Your task to perform on an android device: stop showing notifications on the lock screen Image 0: 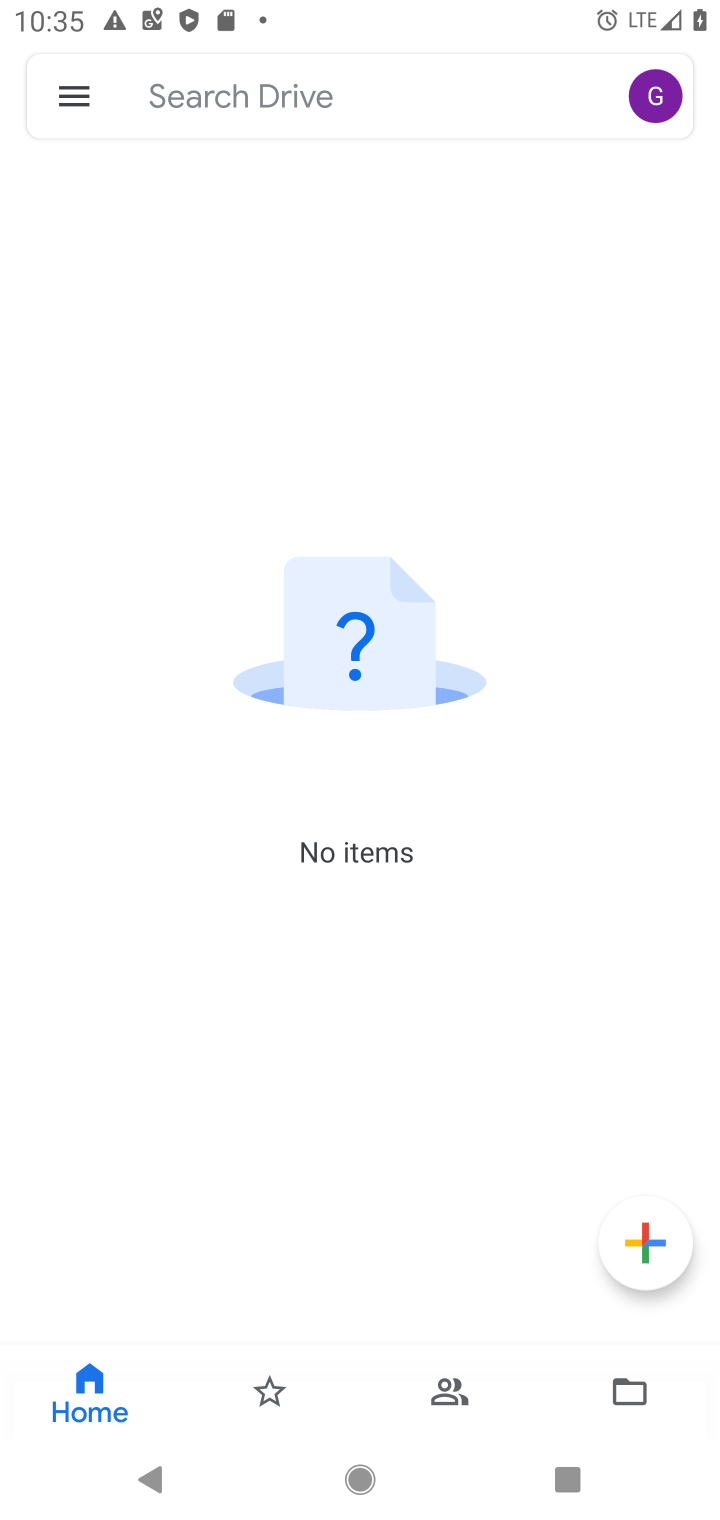
Step 0: press home button
Your task to perform on an android device: stop showing notifications on the lock screen Image 1: 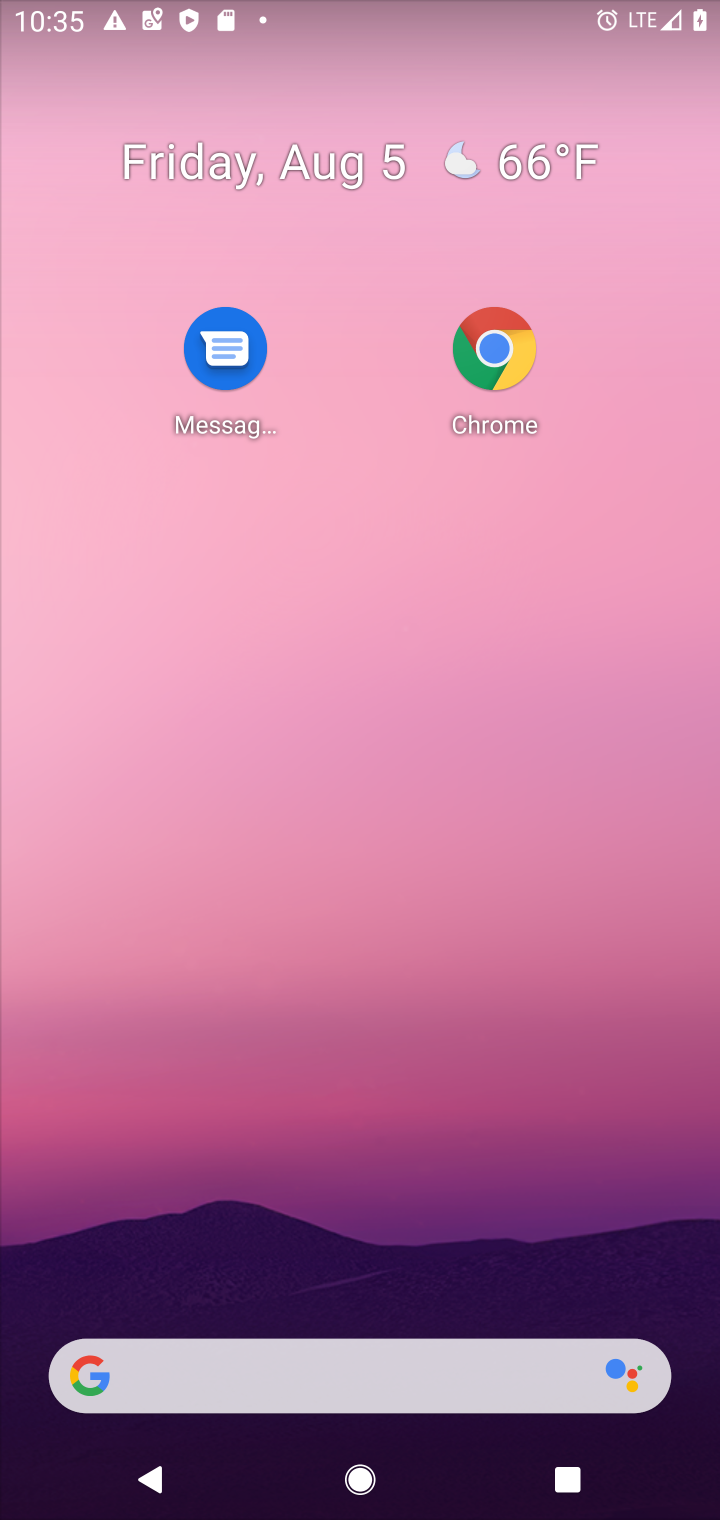
Step 1: drag from (414, 1361) to (479, 537)
Your task to perform on an android device: stop showing notifications on the lock screen Image 2: 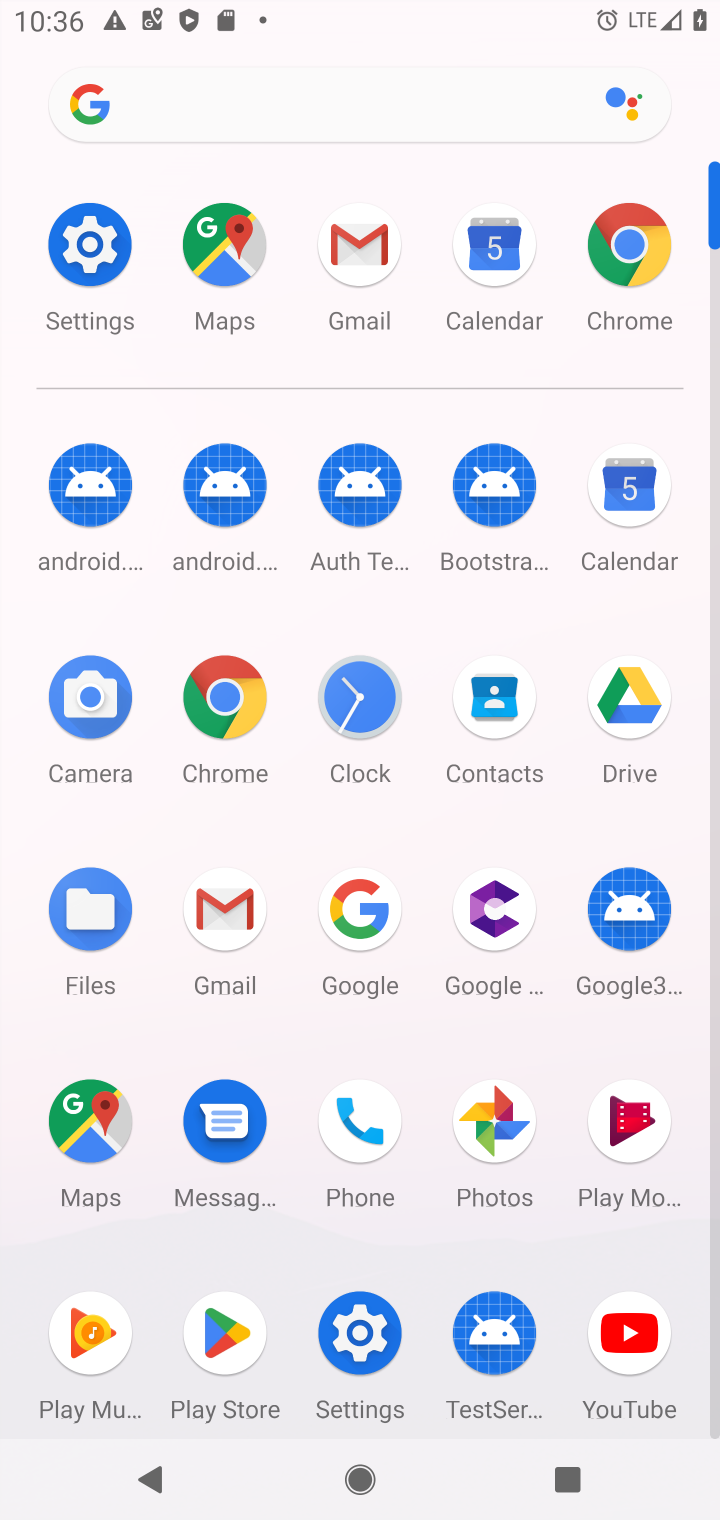
Step 2: click (90, 247)
Your task to perform on an android device: stop showing notifications on the lock screen Image 3: 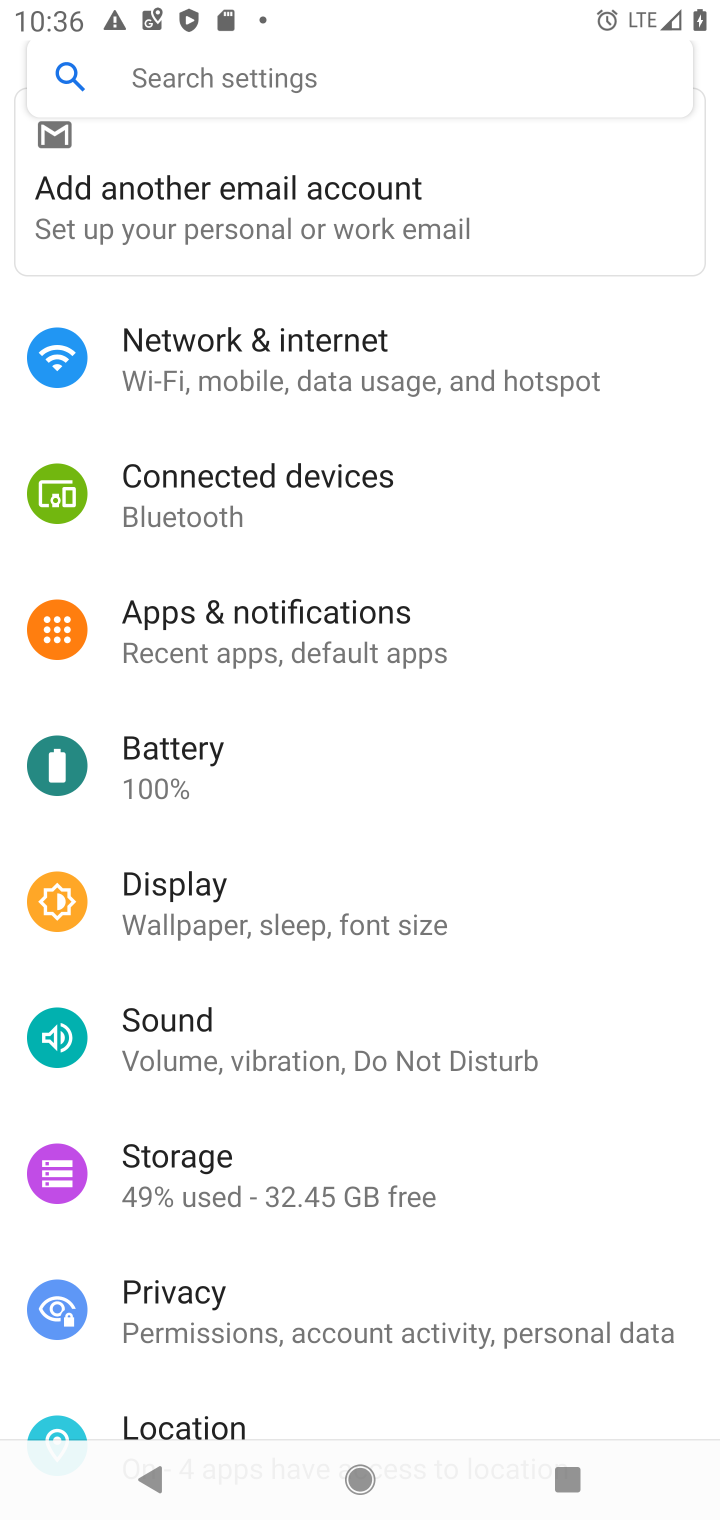
Step 3: click (200, 89)
Your task to perform on an android device: stop showing notifications on the lock screen Image 4: 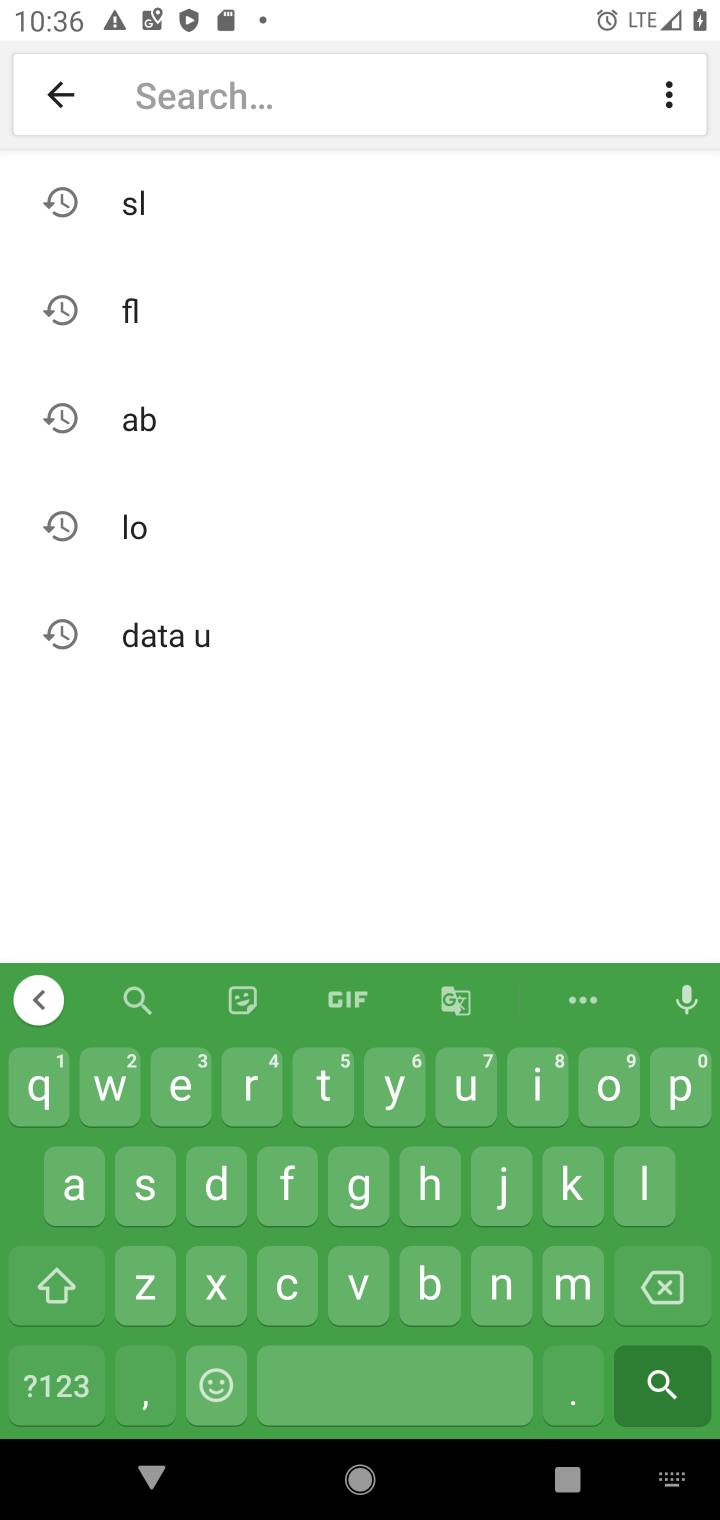
Step 4: click (496, 1275)
Your task to perform on an android device: stop showing notifications on the lock screen Image 5: 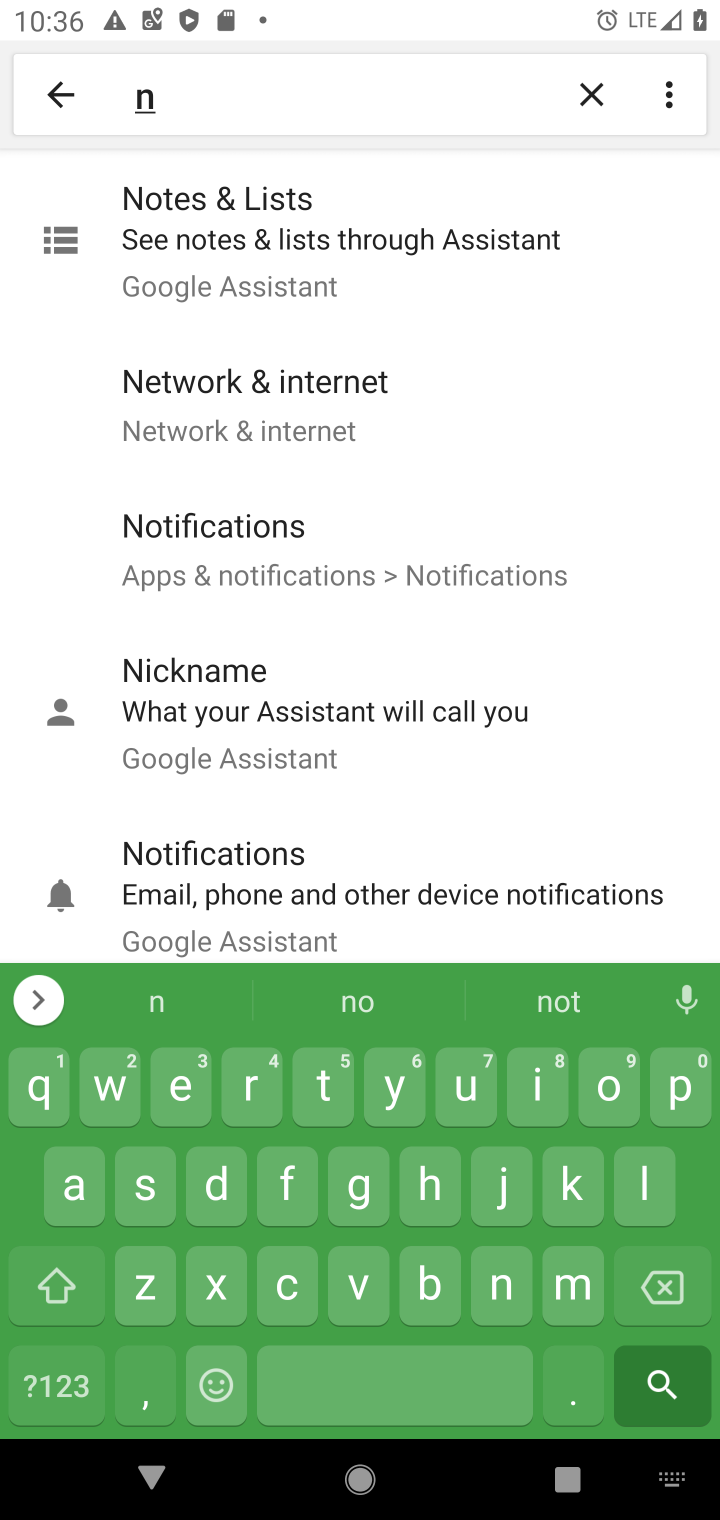
Step 5: click (612, 1090)
Your task to perform on an android device: stop showing notifications on the lock screen Image 6: 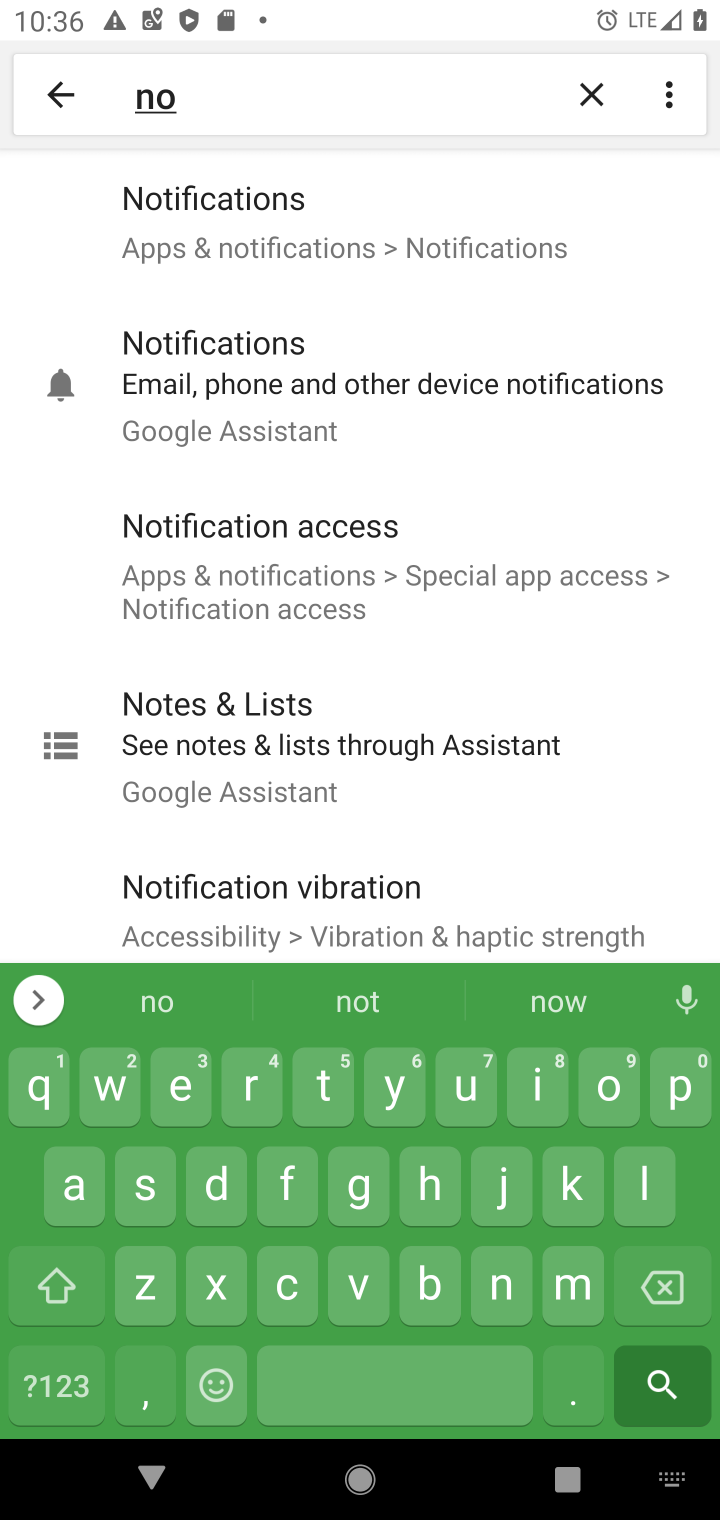
Step 6: click (219, 205)
Your task to perform on an android device: stop showing notifications on the lock screen Image 7: 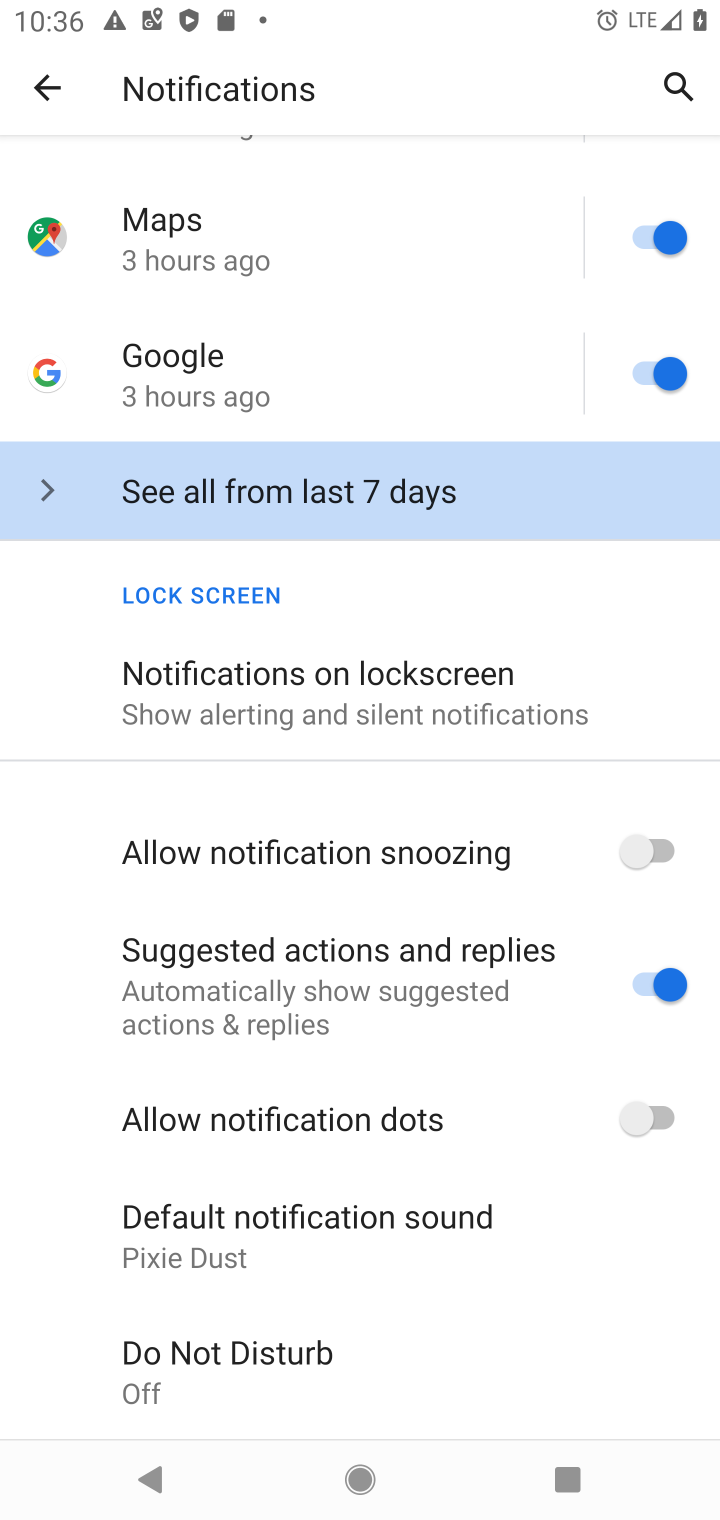
Step 7: click (231, 724)
Your task to perform on an android device: stop showing notifications on the lock screen Image 8: 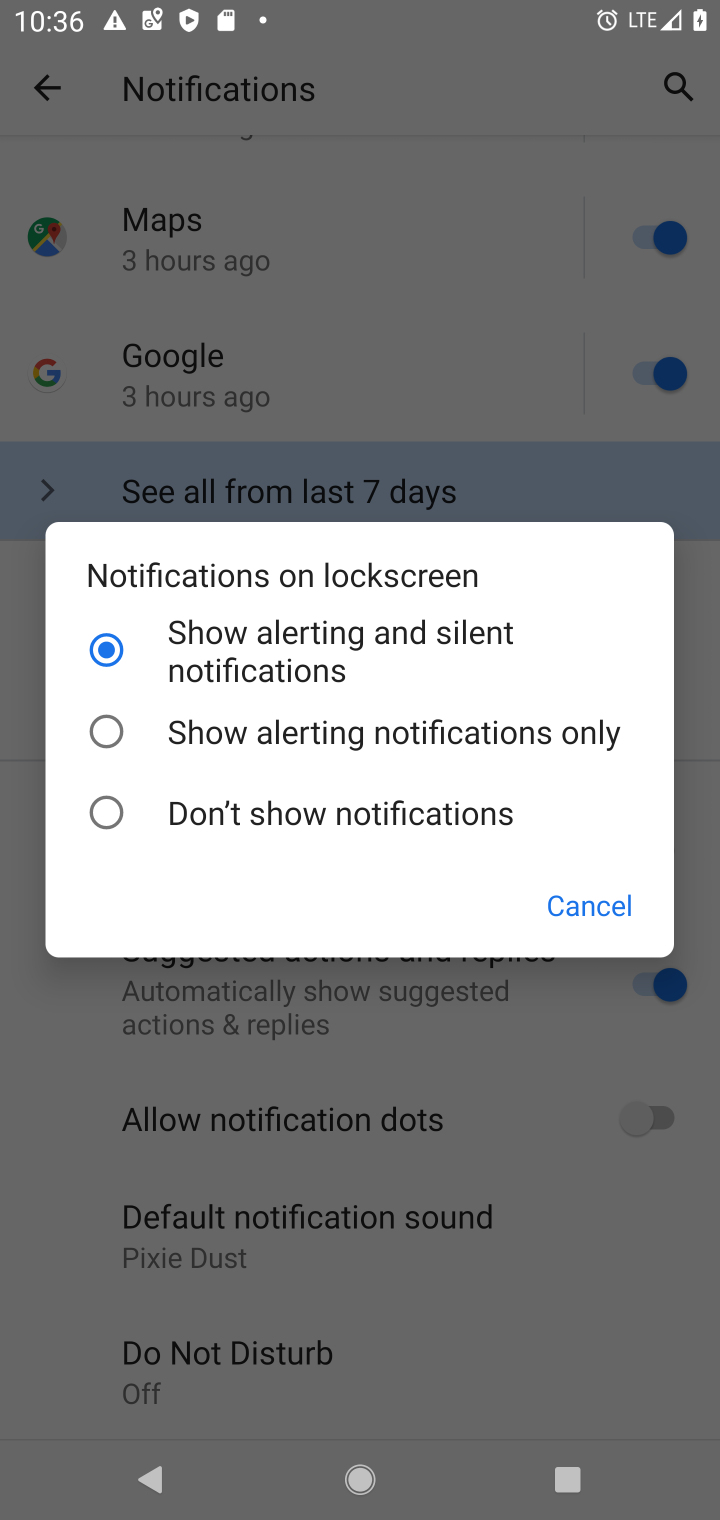
Step 8: click (198, 800)
Your task to perform on an android device: stop showing notifications on the lock screen Image 9: 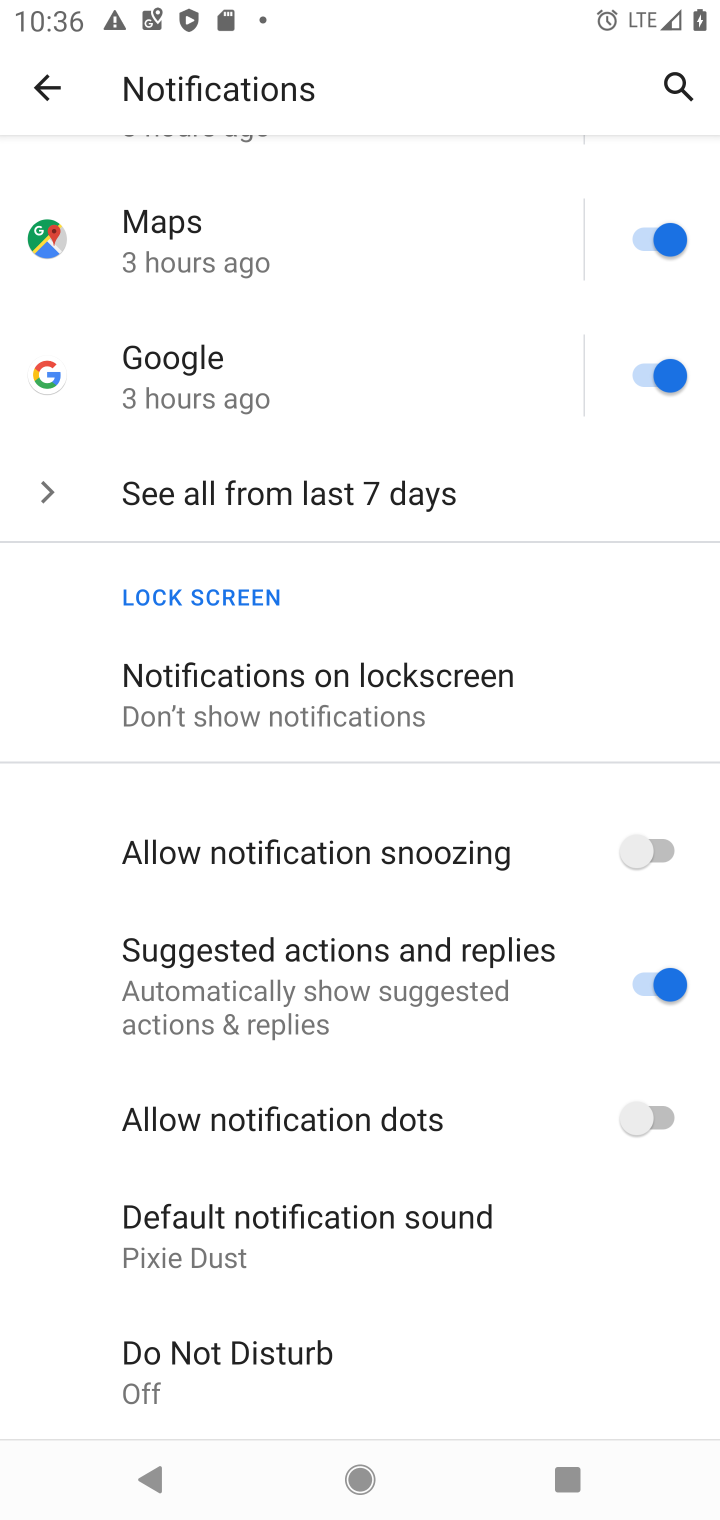
Step 9: click (199, 687)
Your task to perform on an android device: stop showing notifications on the lock screen Image 10: 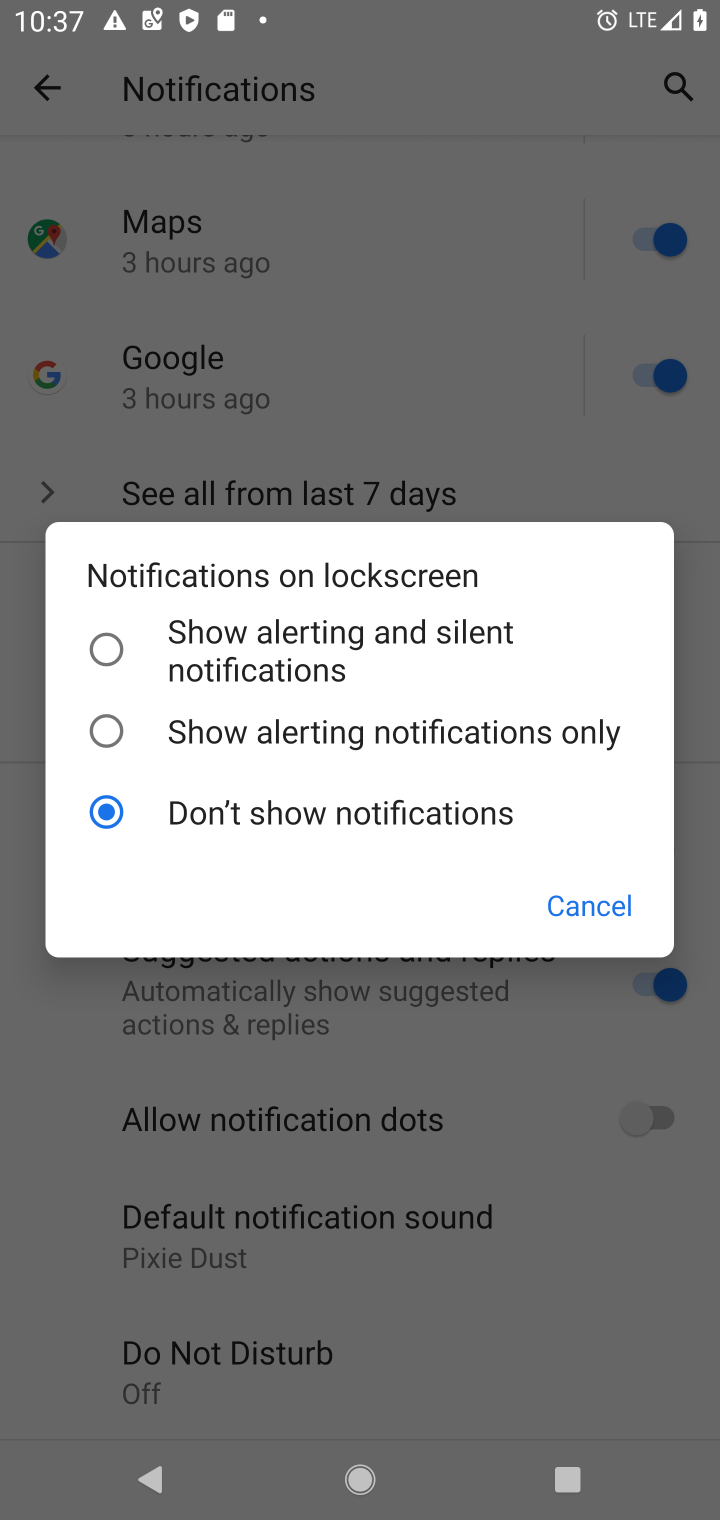
Step 10: task complete